Your task to perform on an android device: Open Yahoo.com Image 0: 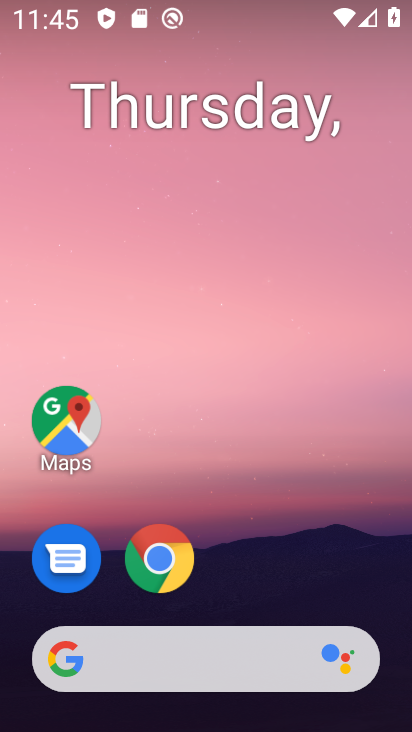
Step 0: drag from (367, 580) to (388, 113)
Your task to perform on an android device: Open Yahoo.com Image 1: 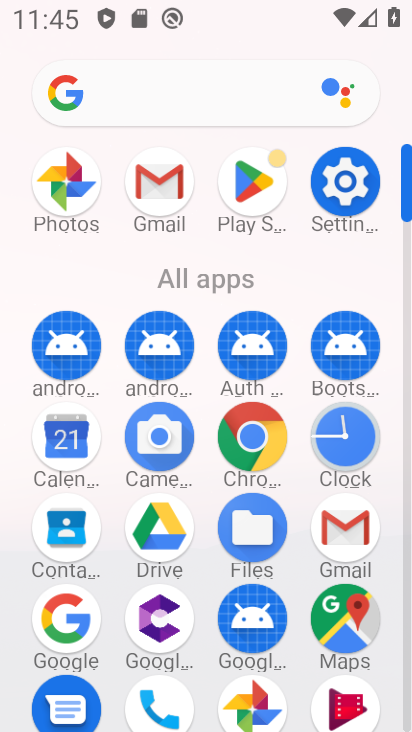
Step 1: click (262, 423)
Your task to perform on an android device: Open Yahoo.com Image 2: 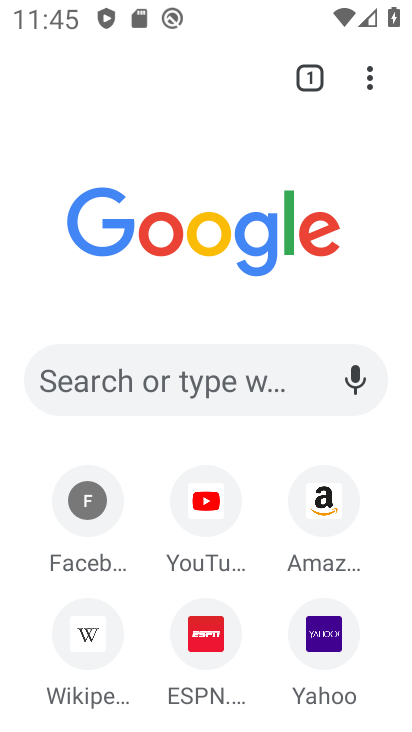
Step 2: click (275, 374)
Your task to perform on an android device: Open Yahoo.com Image 3: 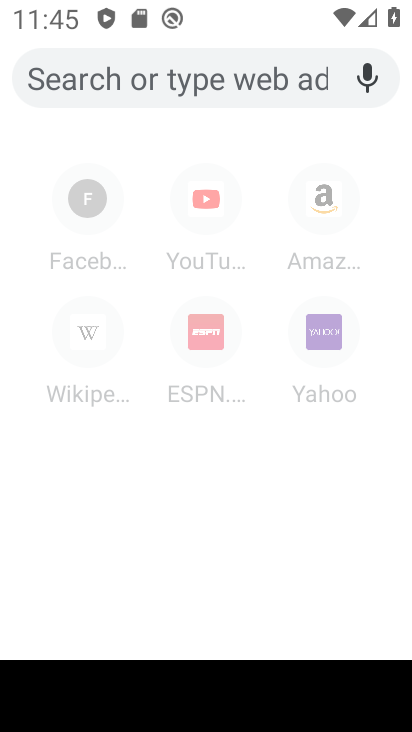
Step 3: type "yahoo.com"
Your task to perform on an android device: Open Yahoo.com Image 4: 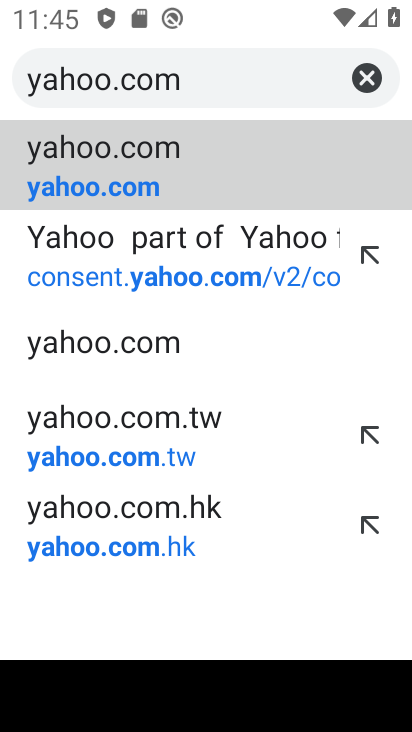
Step 4: click (234, 167)
Your task to perform on an android device: Open Yahoo.com Image 5: 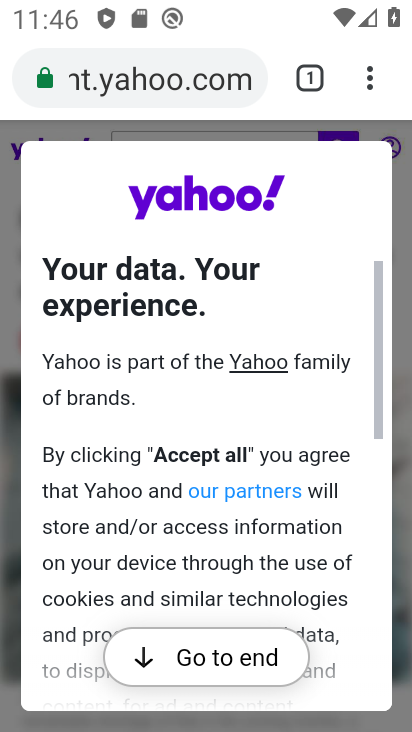
Step 5: task complete